Your task to perform on an android device: What is the news today? Image 0: 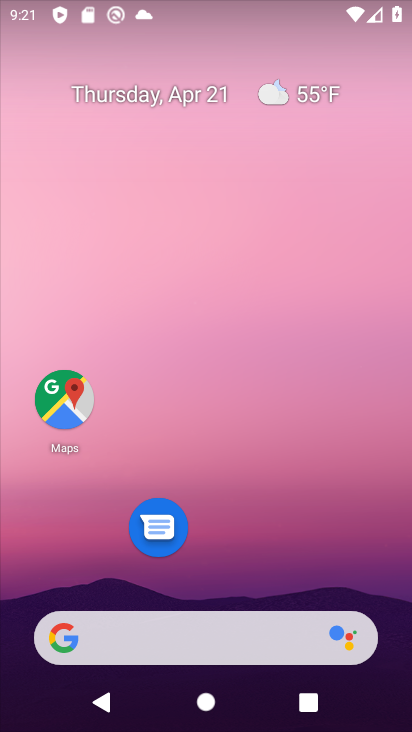
Step 0: drag from (212, 592) to (214, 69)
Your task to perform on an android device: What is the news today? Image 1: 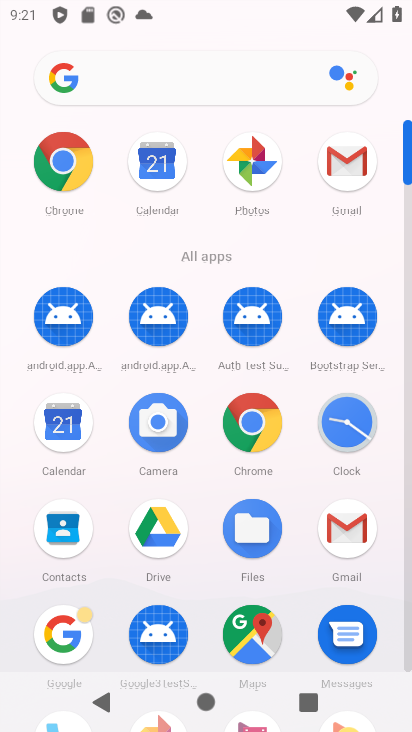
Step 1: click (78, 626)
Your task to perform on an android device: What is the news today? Image 2: 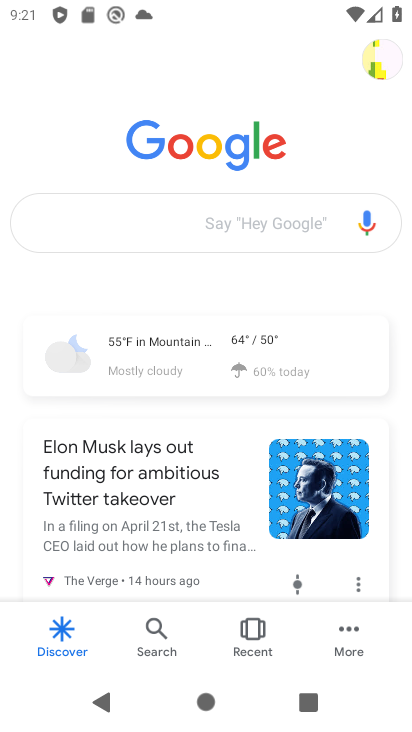
Step 2: click (148, 219)
Your task to perform on an android device: What is the news today? Image 3: 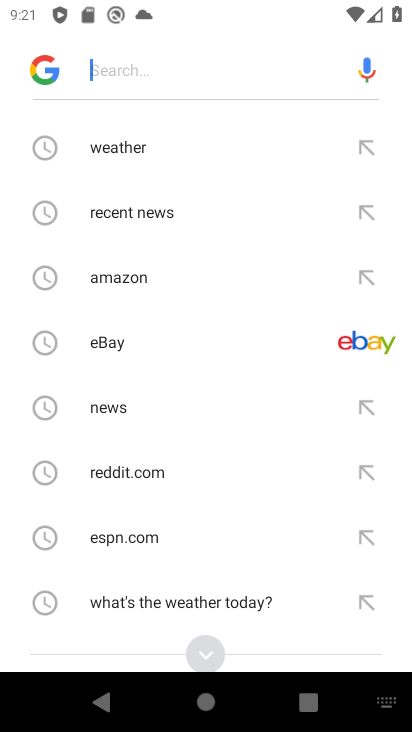
Step 3: click (119, 402)
Your task to perform on an android device: What is the news today? Image 4: 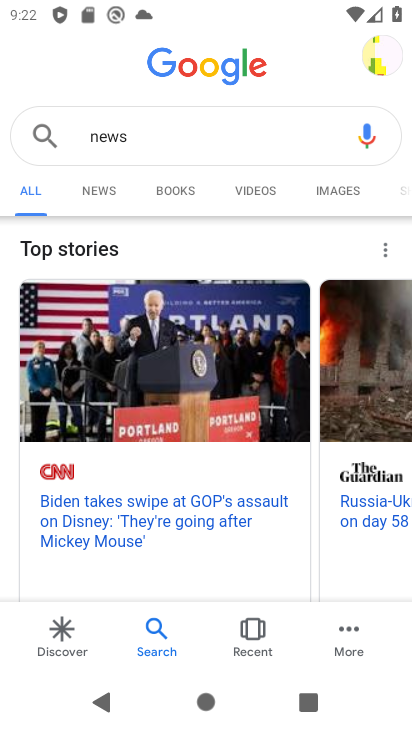
Step 4: task complete